Your task to perform on an android device: turn vacation reply on in the gmail app Image 0: 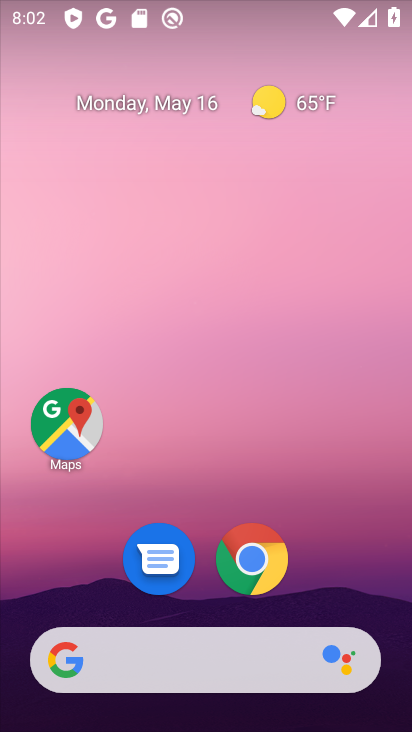
Step 0: drag from (206, 524) to (248, 81)
Your task to perform on an android device: turn vacation reply on in the gmail app Image 1: 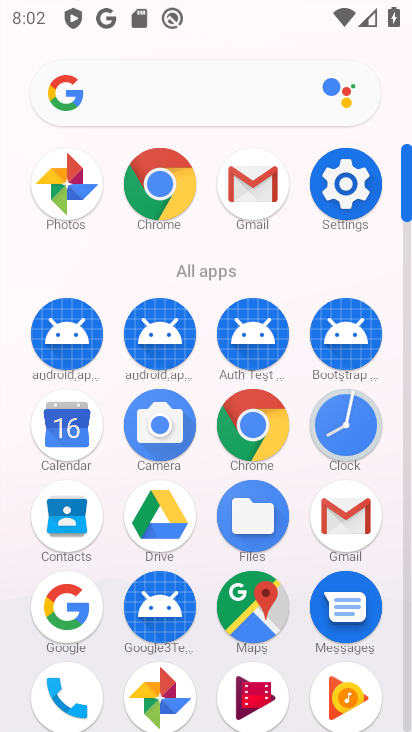
Step 1: click (239, 184)
Your task to perform on an android device: turn vacation reply on in the gmail app Image 2: 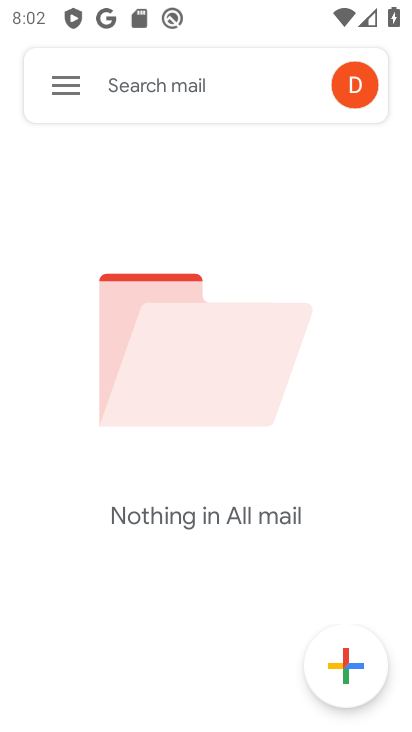
Step 2: click (61, 75)
Your task to perform on an android device: turn vacation reply on in the gmail app Image 3: 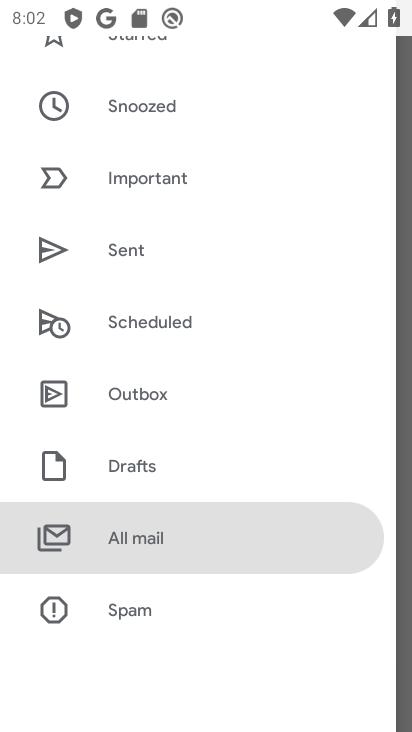
Step 3: drag from (164, 575) to (273, 25)
Your task to perform on an android device: turn vacation reply on in the gmail app Image 4: 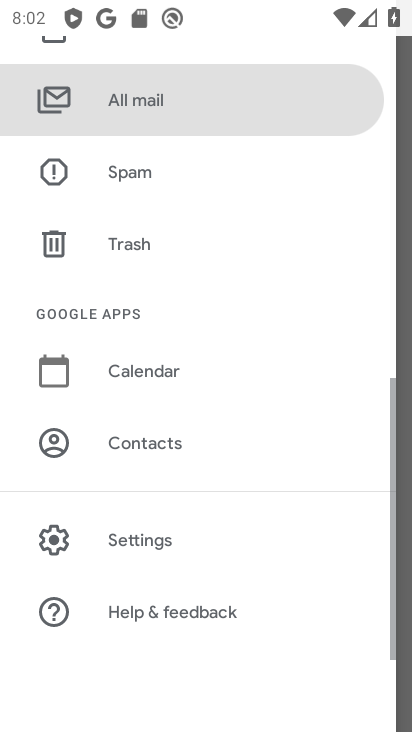
Step 4: click (155, 535)
Your task to perform on an android device: turn vacation reply on in the gmail app Image 5: 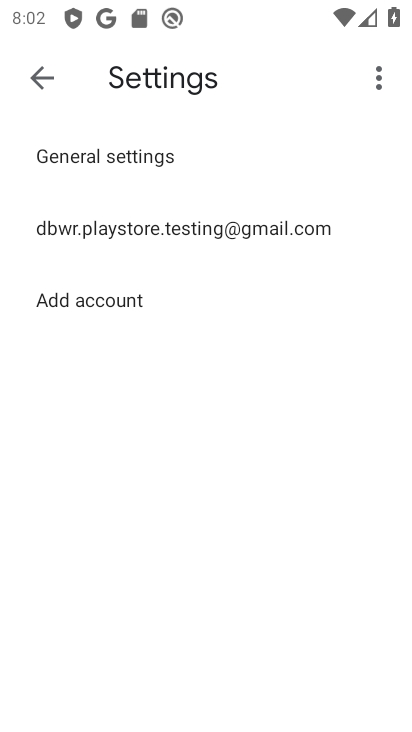
Step 5: click (137, 237)
Your task to perform on an android device: turn vacation reply on in the gmail app Image 6: 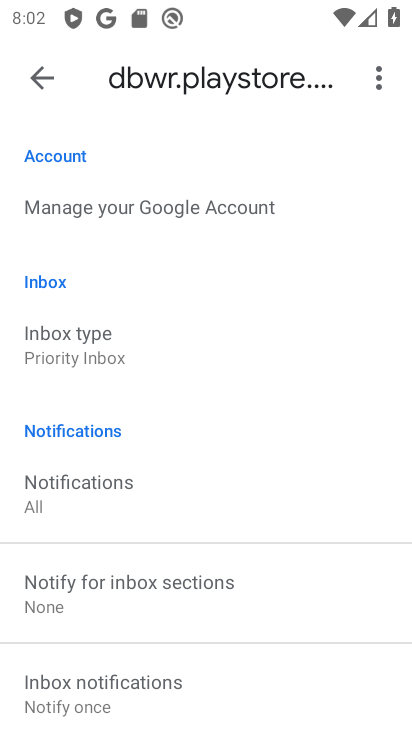
Step 6: drag from (140, 674) to (305, 81)
Your task to perform on an android device: turn vacation reply on in the gmail app Image 7: 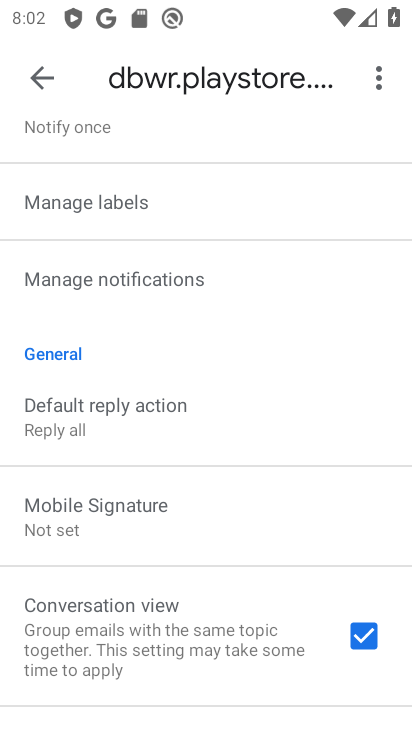
Step 7: drag from (173, 667) to (298, 153)
Your task to perform on an android device: turn vacation reply on in the gmail app Image 8: 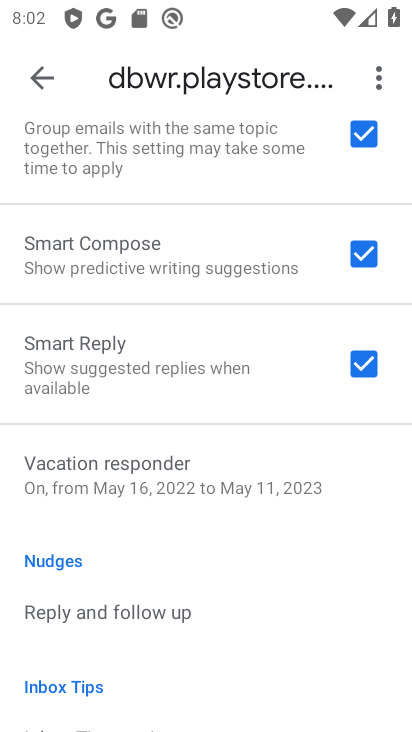
Step 8: click (135, 471)
Your task to perform on an android device: turn vacation reply on in the gmail app Image 9: 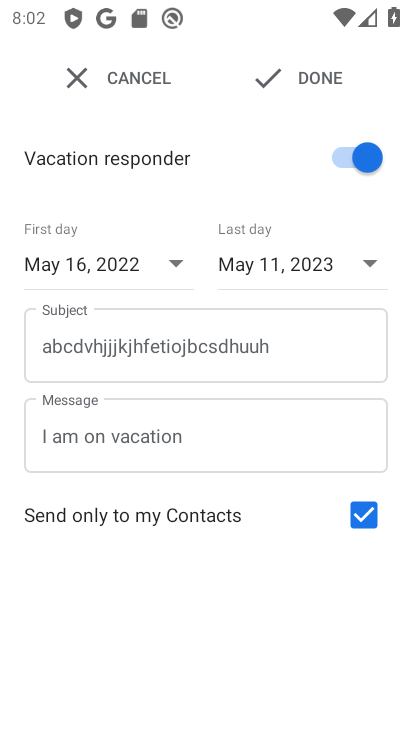
Step 9: task complete